Your task to perform on an android device: Open Android settings Image 0: 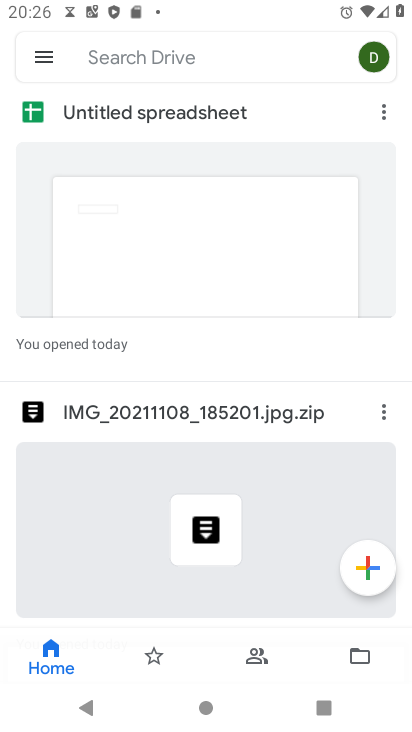
Step 0: press home button
Your task to perform on an android device: Open Android settings Image 1: 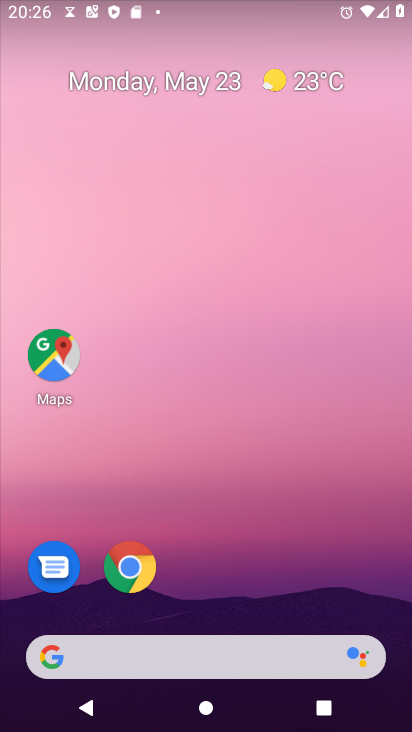
Step 1: drag from (318, 597) to (299, 230)
Your task to perform on an android device: Open Android settings Image 2: 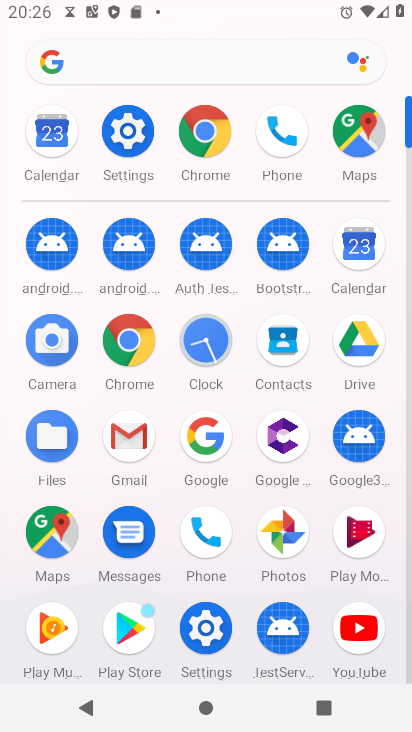
Step 2: click (121, 128)
Your task to perform on an android device: Open Android settings Image 3: 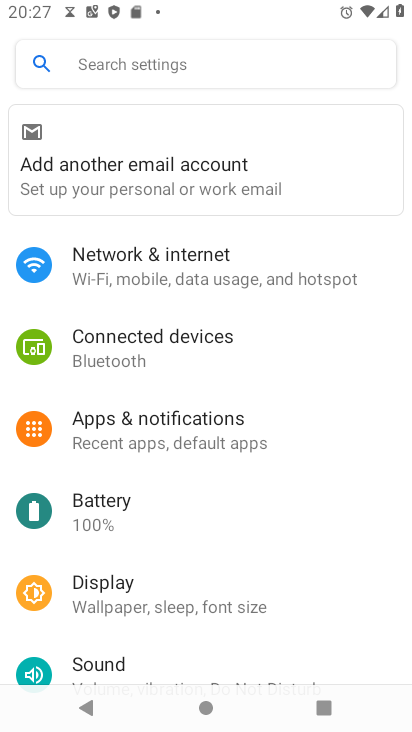
Step 3: task complete